Your task to perform on an android device: turn on translation in the chrome app Image 0: 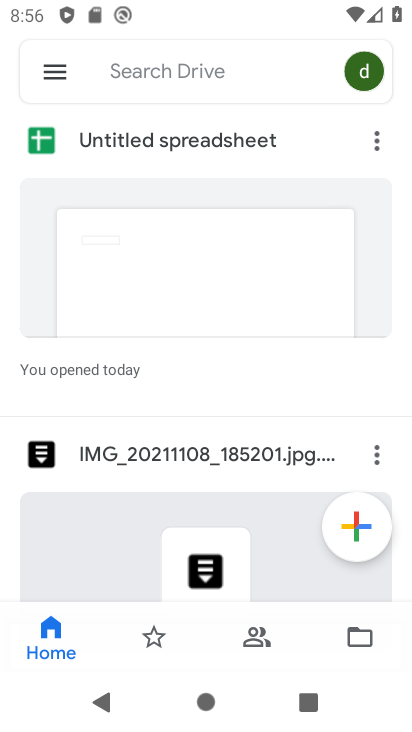
Step 0: press home button
Your task to perform on an android device: turn on translation in the chrome app Image 1: 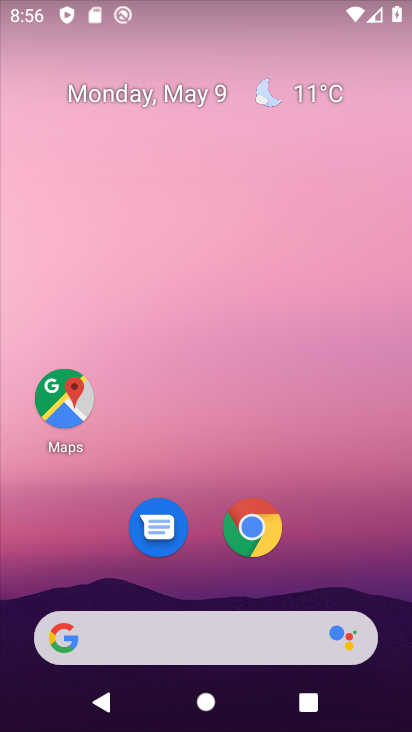
Step 1: click (254, 532)
Your task to perform on an android device: turn on translation in the chrome app Image 2: 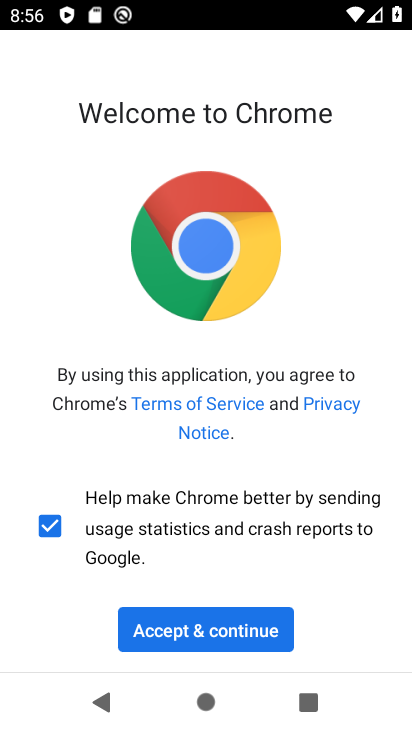
Step 2: click (230, 631)
Your task to perform on an android device: turn on translation in the chrome app Image 3: 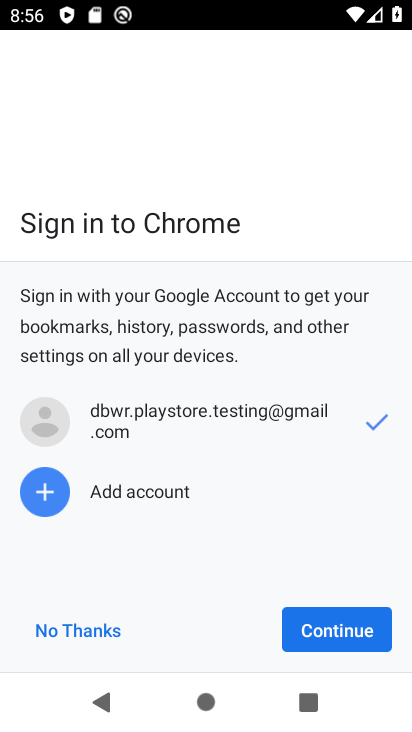
Step 3: click (347, 629)
Your task to perform on an android device: turn on translation in the chrome app Image 4: 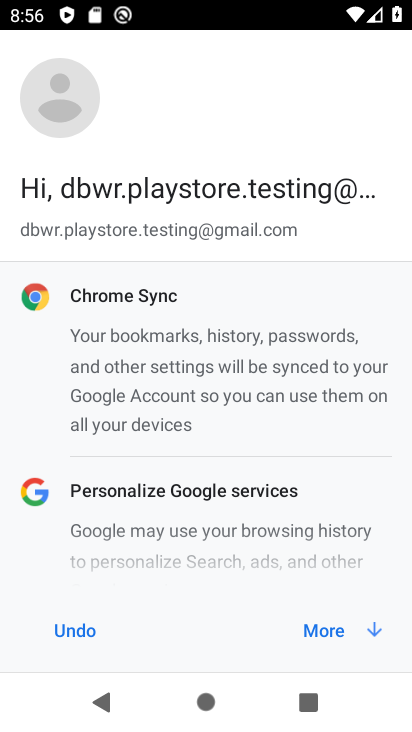
Step 4: click (347, 629)
Your task to perform on an android device: turn on translation in the chrome app Image 5: 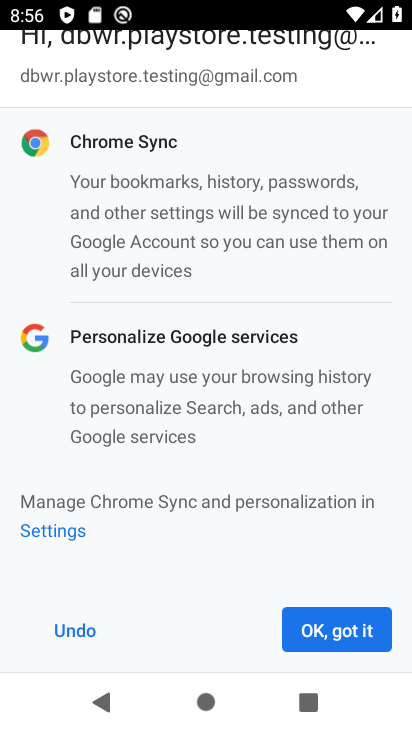
Step 5: click (347, 629)
Your task to perform on an android device: turn on translation in the chrome app Image 6: 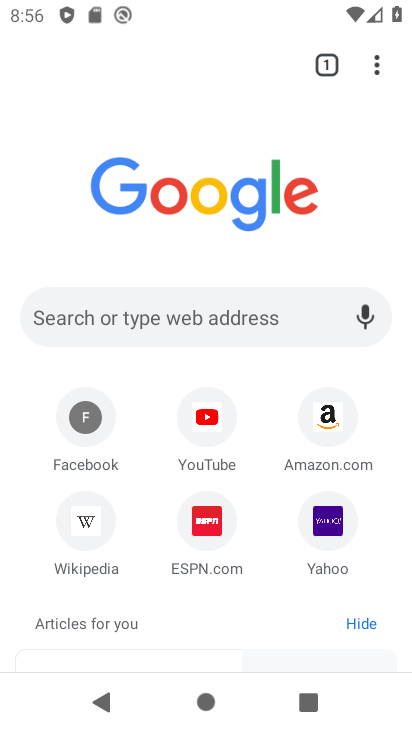
Step 6: click (388, 78)
Your task to perform on an android device: turn on translation in the chrome app Image 7: 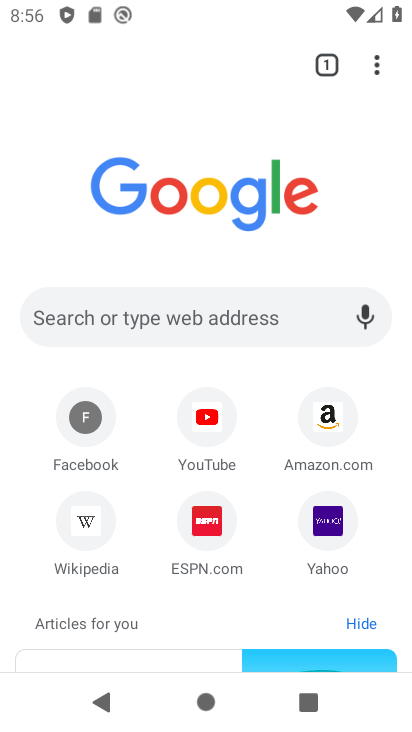
Step 7: click (379, 67)
Your task to perform on an android device: turn on translation in the chrome app Image 8: 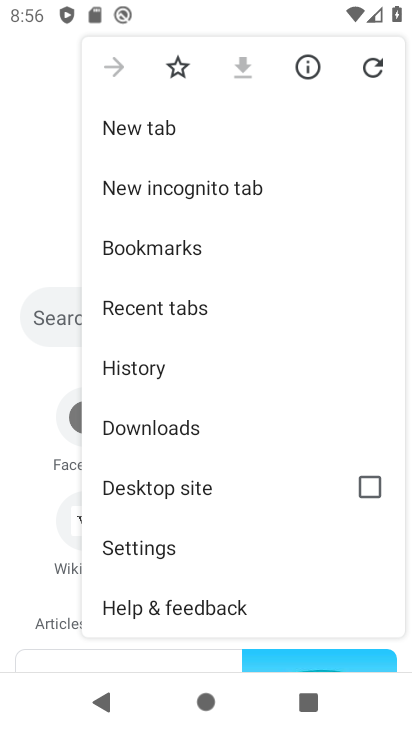
Step 8: click (156, 556)
Your task to perform on an android device: turn on translation in the chrome app Image 9: 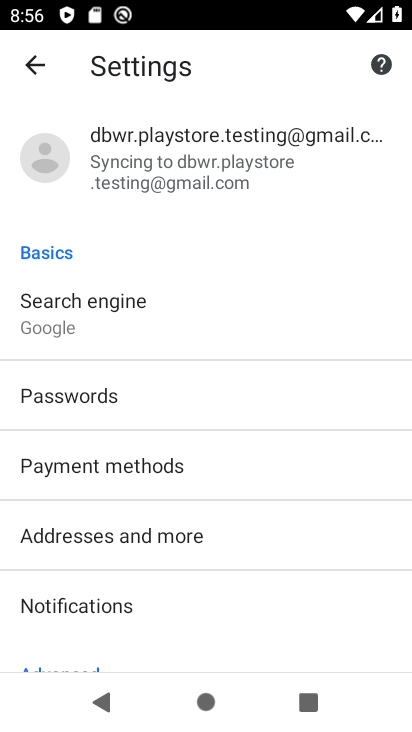
Step 9: drag from (132, 563) to (161, 378)
Your task to perform on an android device: turn on translation in the chrome app Image 10: 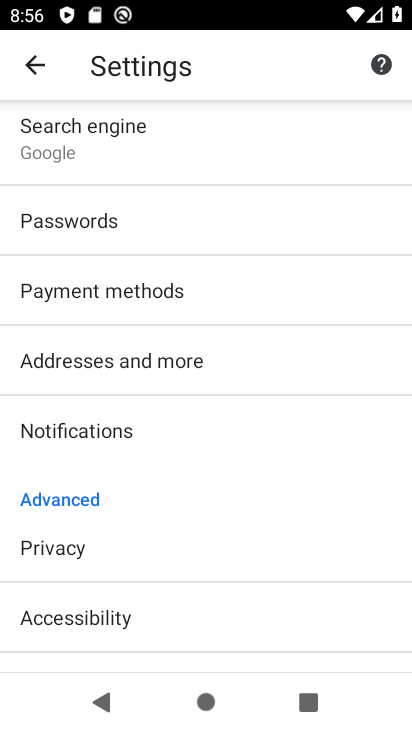
Step 10: drag from (81, 576) to (132, 384)
Your task to perform on an android device: turn on translation in the chrome app Image 11: 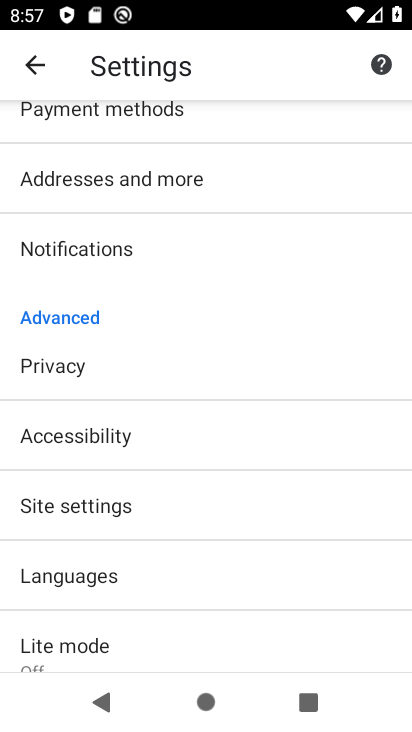
Step 11: click (87, 586)
Your task to perform on an android device: turn on translation in the chrome app Image 12: 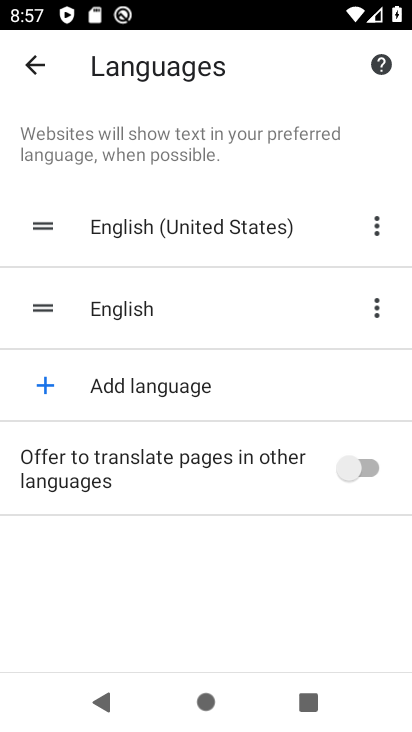
Step 12: click (362, 485)
Your task to perform on an android device: turn on translation in the chrome app Image 13: 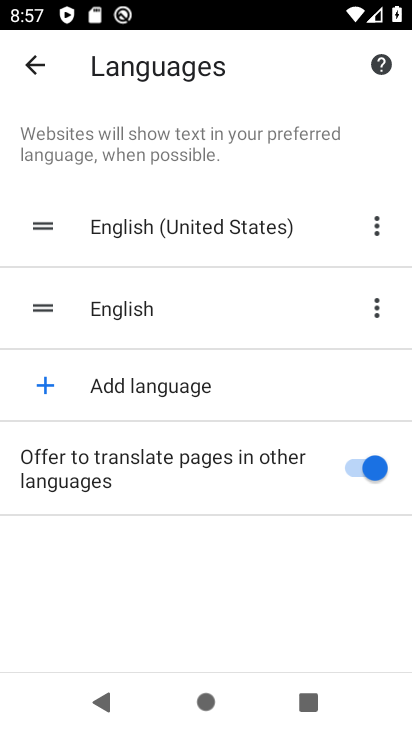
Step 13: task complete